Your task to perform on an android device: toggle pop-ups in chrome Image 0: 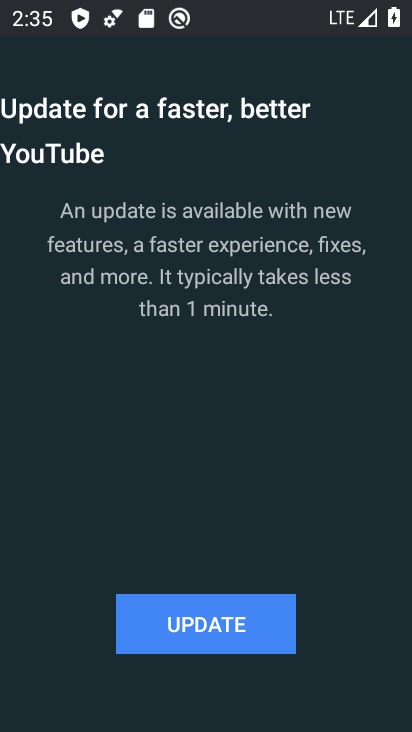
Step 0: drag from (335, 546) to (383, 216)
Your task to perform on an android device: toggle pop-ups in chrome Image 1: 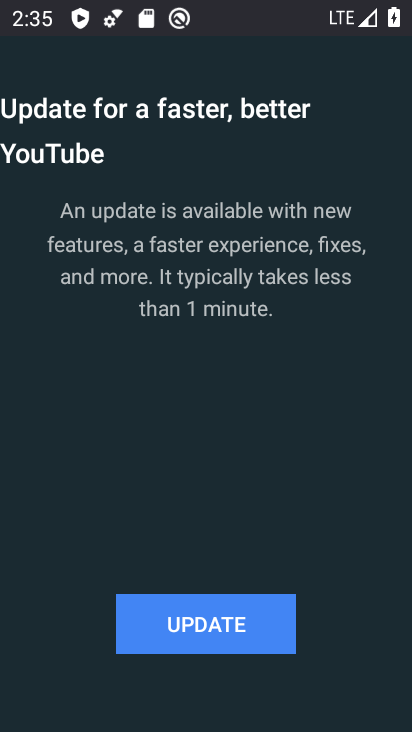
Step 1: press home button
Your task to perform on an android device: toggle pop-ups in chrome Image 2: 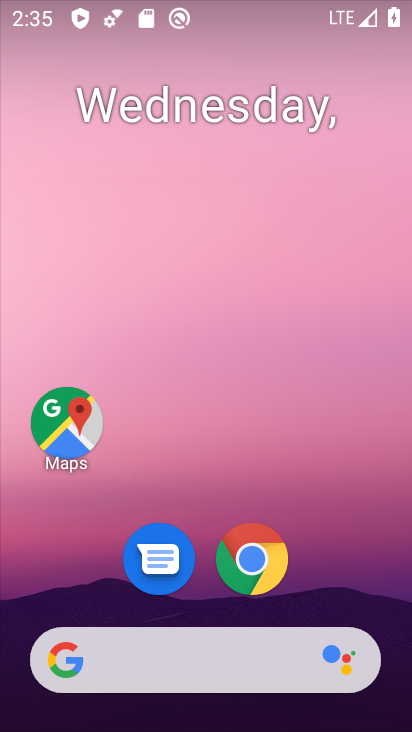
Step 2: drag from (362, 521) to (362, 57)
Your task to perform on an android device: toggle pop-ups in chrome Image 3: 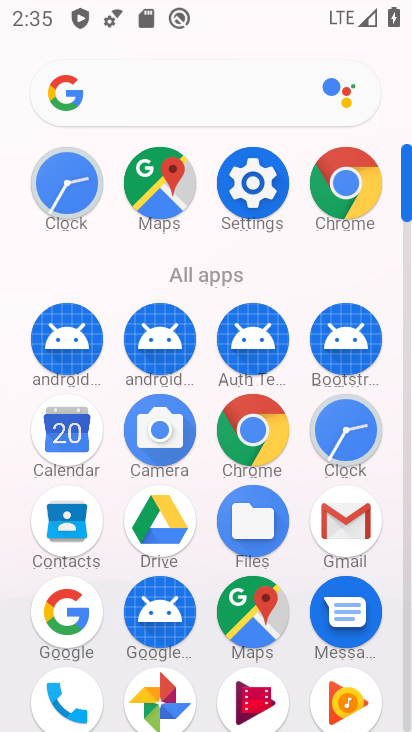
Step 3: click (266, 436)
Your task to perform on an android device: toggle pop-ups in chrome Image 4: 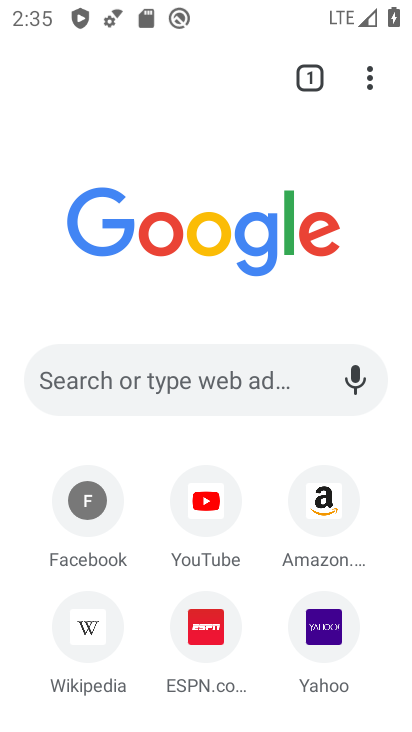
Step 4: drag from (386, 83) to (100, 646)
Your task to perform on an android device: toggle pop-ups in chrome Image 5: 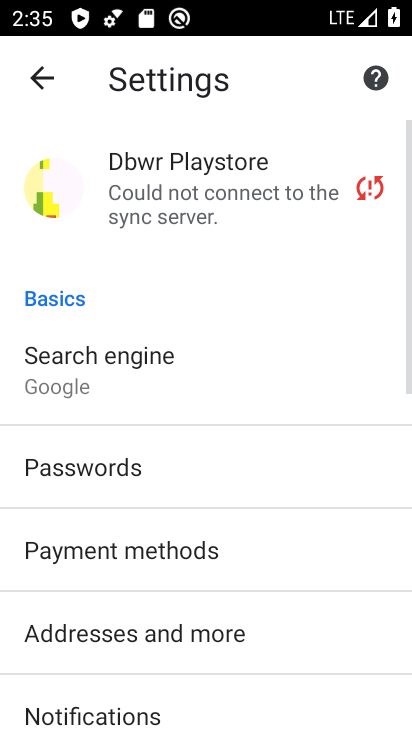
Step 5: drag from (255, 669) to (253, 397)
Your task to perform on an android device: toggle pop-ups in chrome Image 6: 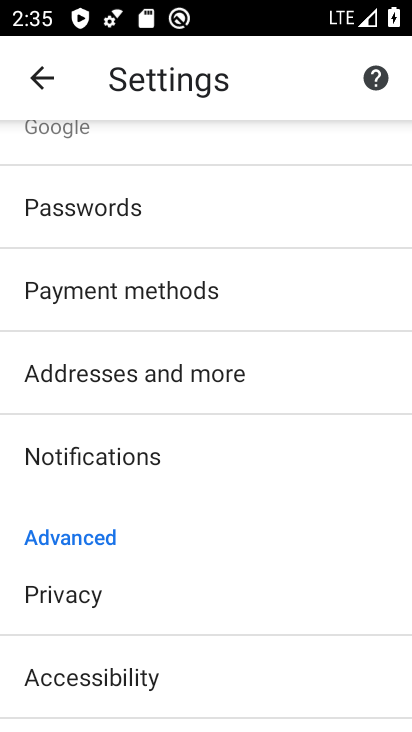
Step 6: drag from (274, 646) to (271, 288)
Your task to perform on an android device: toggle pop-ups in chrome Image 7: 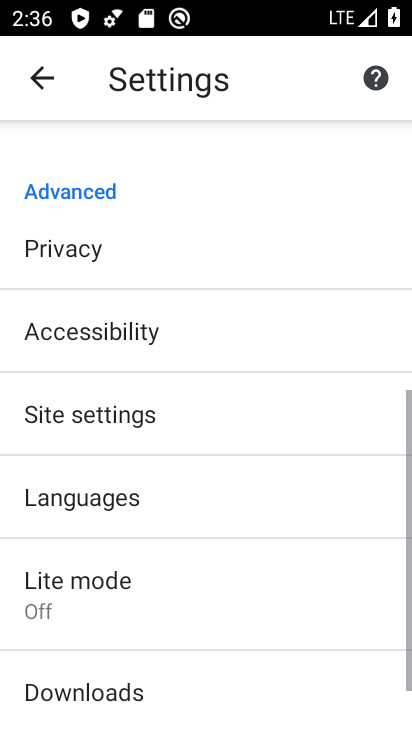
Step 7: click (179, 424)
Your task to perform on an android device: toggle pop-ups in chrome Image 8: 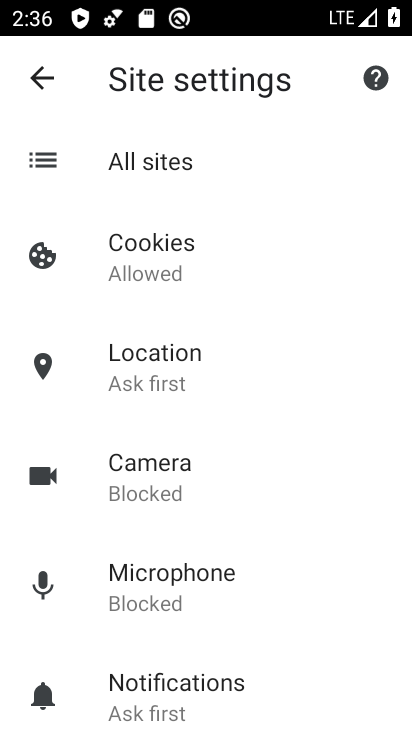
Step 8: drag from (289, 650) to (282, 322)
Your task to perform on an android device: toggle pop-ups in chrome Image 9: 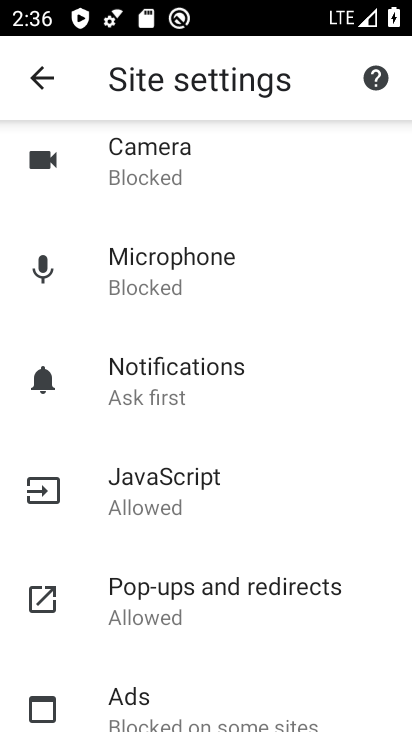
Step 9: click (223, 568)
Your task to perform on an android device: toggle pop-ups in chrome Image 10: 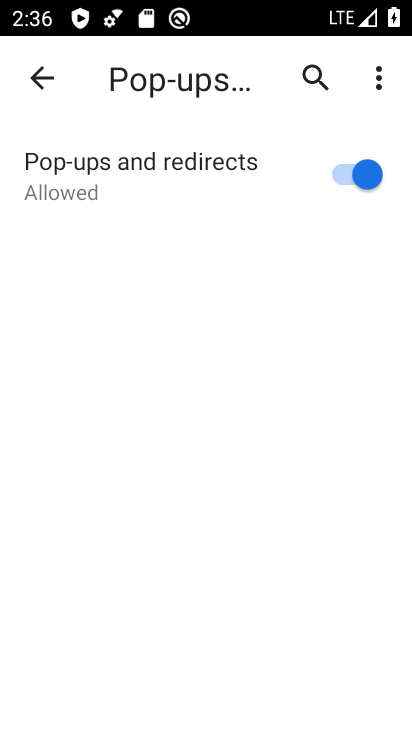
Step 10: click (331, 181)
Your task to perform on an android device: toggle pop-ups in chrome Image 11: 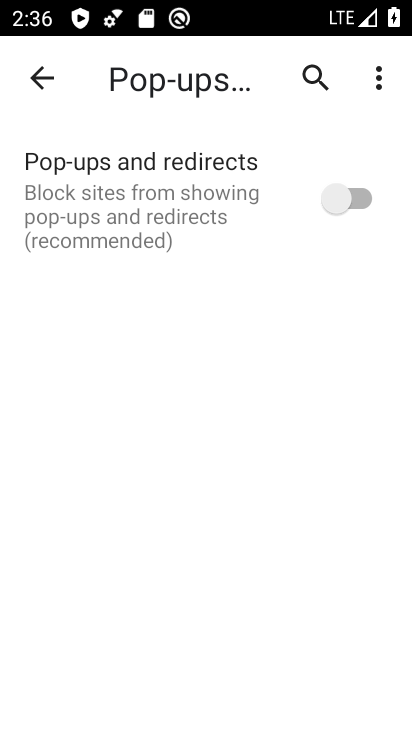
Step 11: task complete